Your task to perform on an android device: change text size in settings app Image 0: 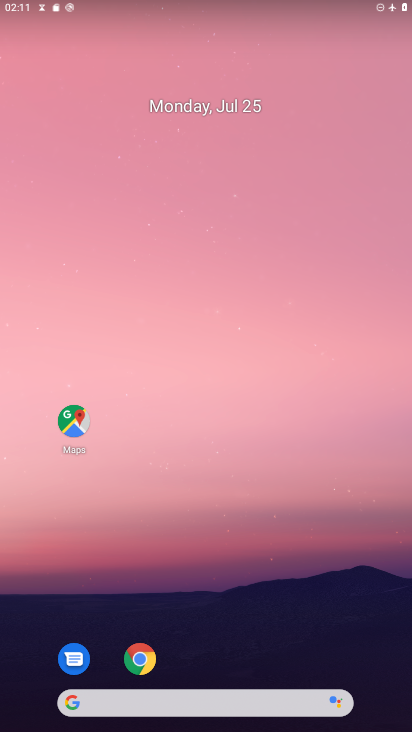
Step 0: drag from (303, 617) to (272, 148)
Your task to perform on an android device: change text size in settings app Image 1: 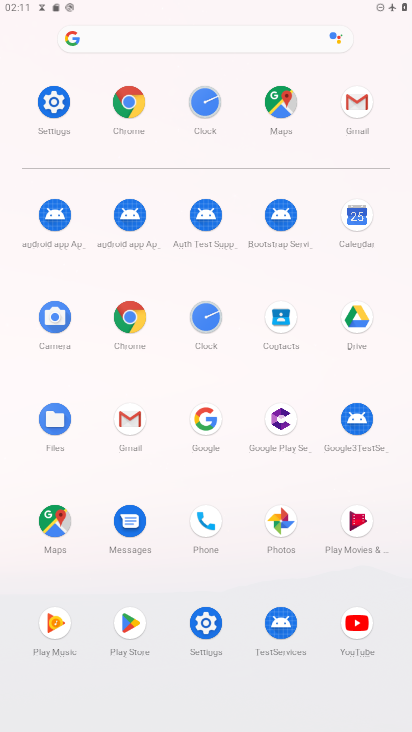
Step 1: click (57, 101)
Your task to perform on an android device: change text size in settings app Image 2: 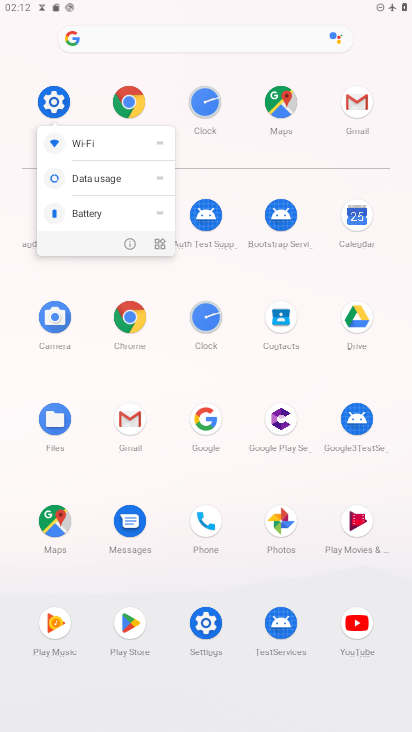
Step 2: click (56, 106)
Your task to perform on an android device: change text size in settings app Image 3: 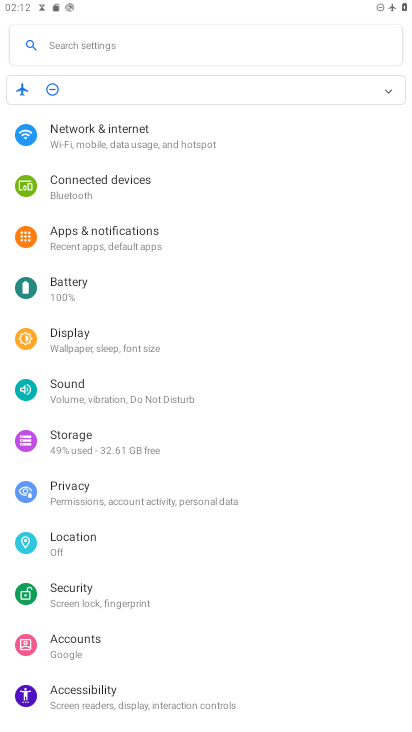
Step 3: drag from (137, 658) to (153, 462)
Your task to perform on an android device: change text size in settings app Image 4: 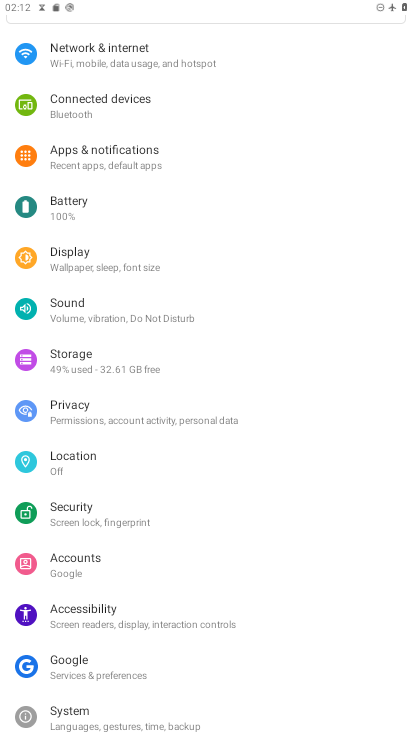
Step 4: click (141, 607)
Your task to perform on an android device: change text size in settings app Image 5: 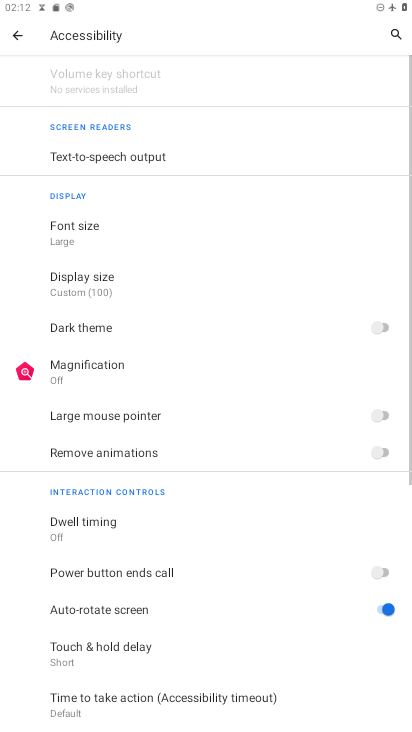
Step 5: click (91, 245)
Your task to perform on an android device: change text size in settings app Image 6: 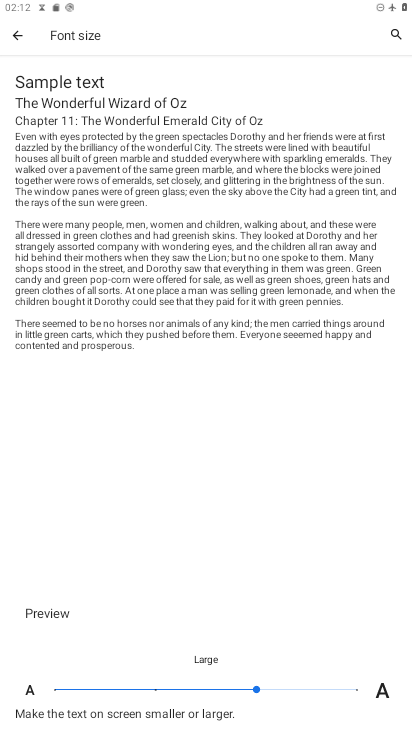
Step 6: click (357, 687)
Your task to perform on an android device: change text size in settings app Image 7: 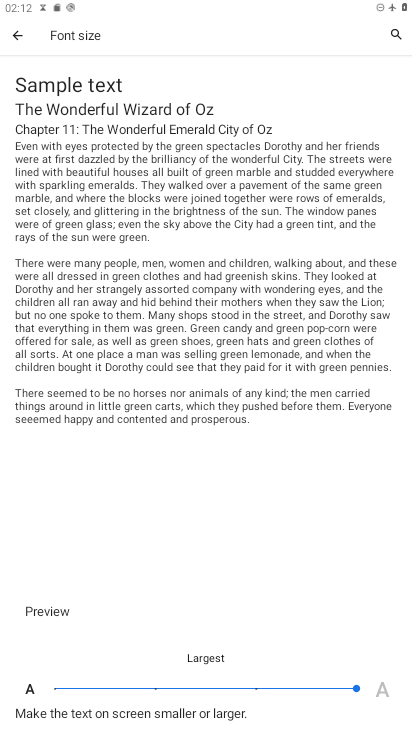
Step 7: task complete